Your task to perform on an android device: show emergency info Image 0: 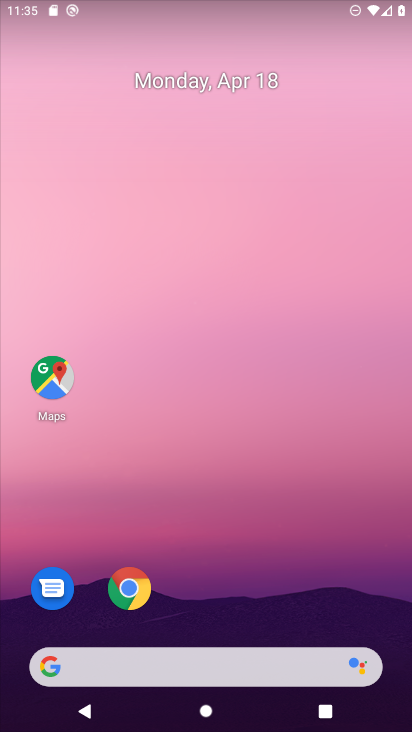
Step 0: drag from (326, 530) to (252, 12)
Your task to perform on an android device: show emergency info Image 1: 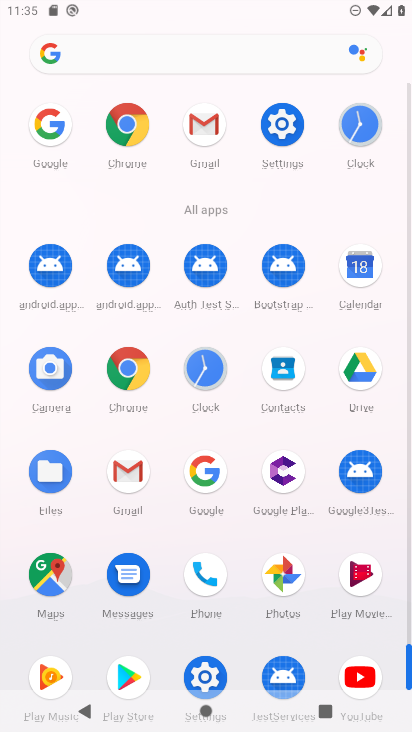
Step 1: click (277, 120)
Your task to perform on an android device: show emergency info Image 2: 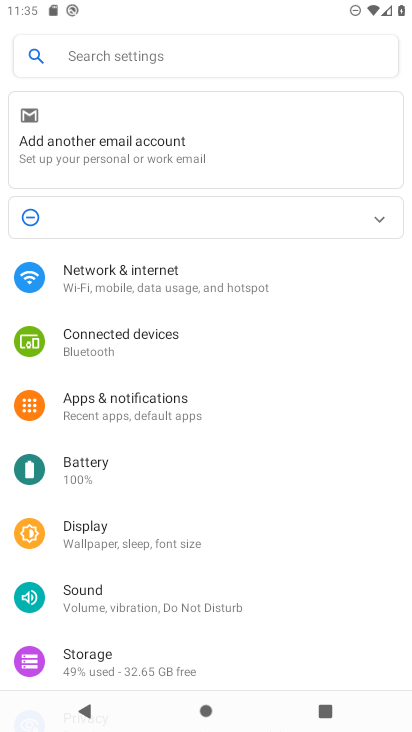
Step 2: drag from (263, 554) to (259, 107)
Your task to perform on an android device: show emergency info Image 3: 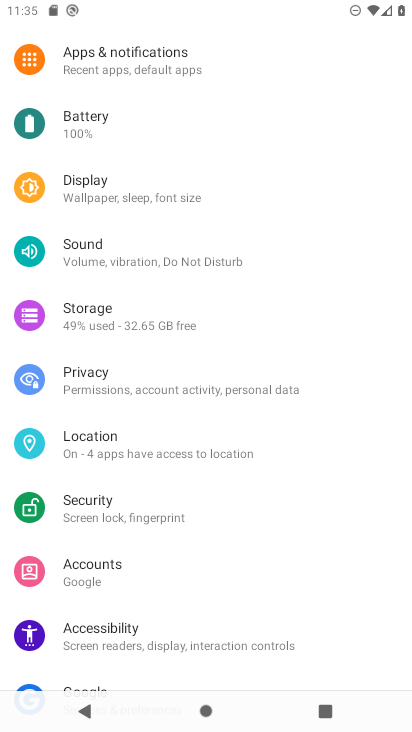
Step 3: drag from (237, 537) to (219, 112)
Your task to perform on an android device: show emergency info Image 4: 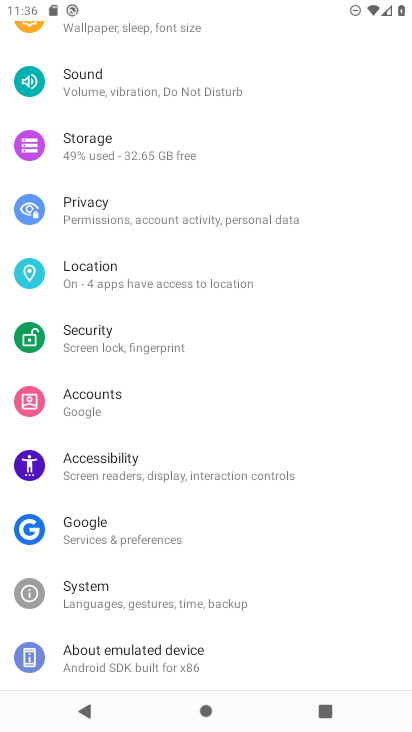
Step 4: drag from (194, 575) to (201, 139)
Your task to perform on an android device: show emergency info Image 5: 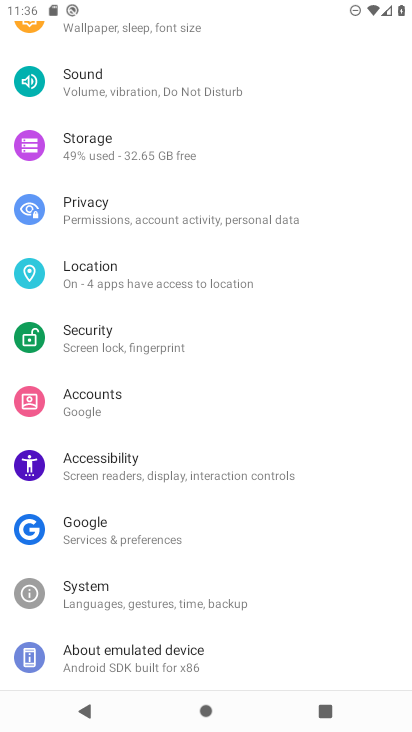
Step 5: click (178, 650)
Your task to perform on an android device: show emergency info Image 6: 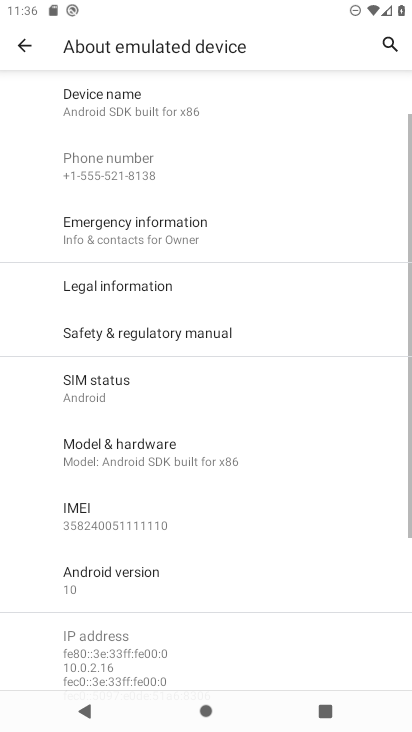
Step 6: drag from (253, 434) to (268, 155)
Your task to perform on an android device: show emergency info Image 7: 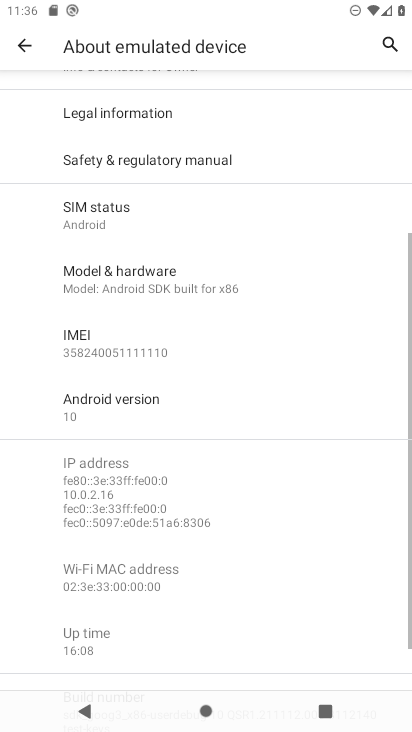
Step 7: drag from (228, 184) to (202, 491)
Your task to perform on an android device: show emergency info Image 8: 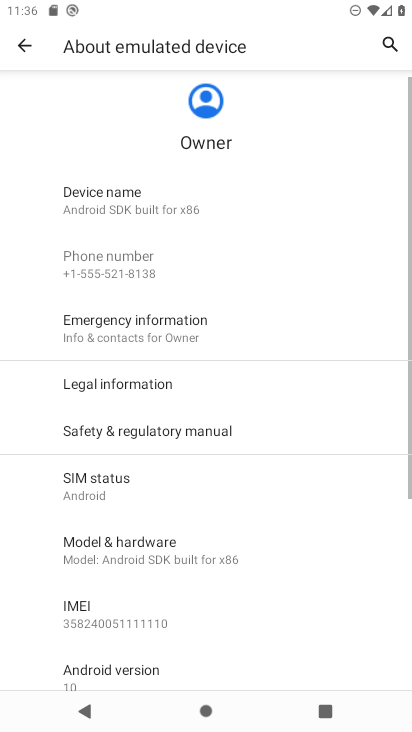
Step 8: click (189, 337)
Your task to perform on an android device: show emergency info Image 9: 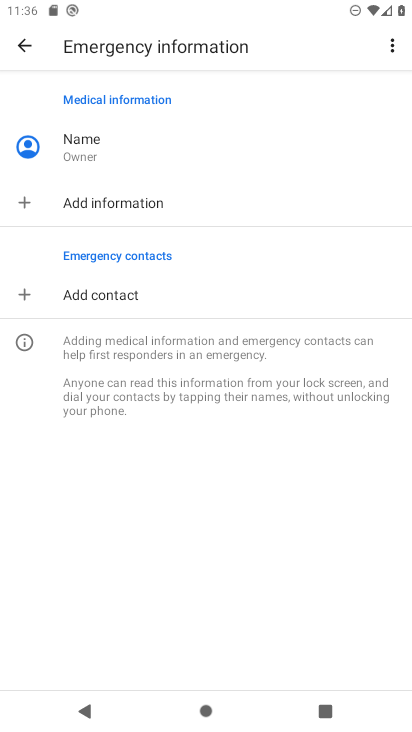
Step 9: task complete